Your task to perform on an android device: Search for the best Nike running shoes on Nike.com Image 0: 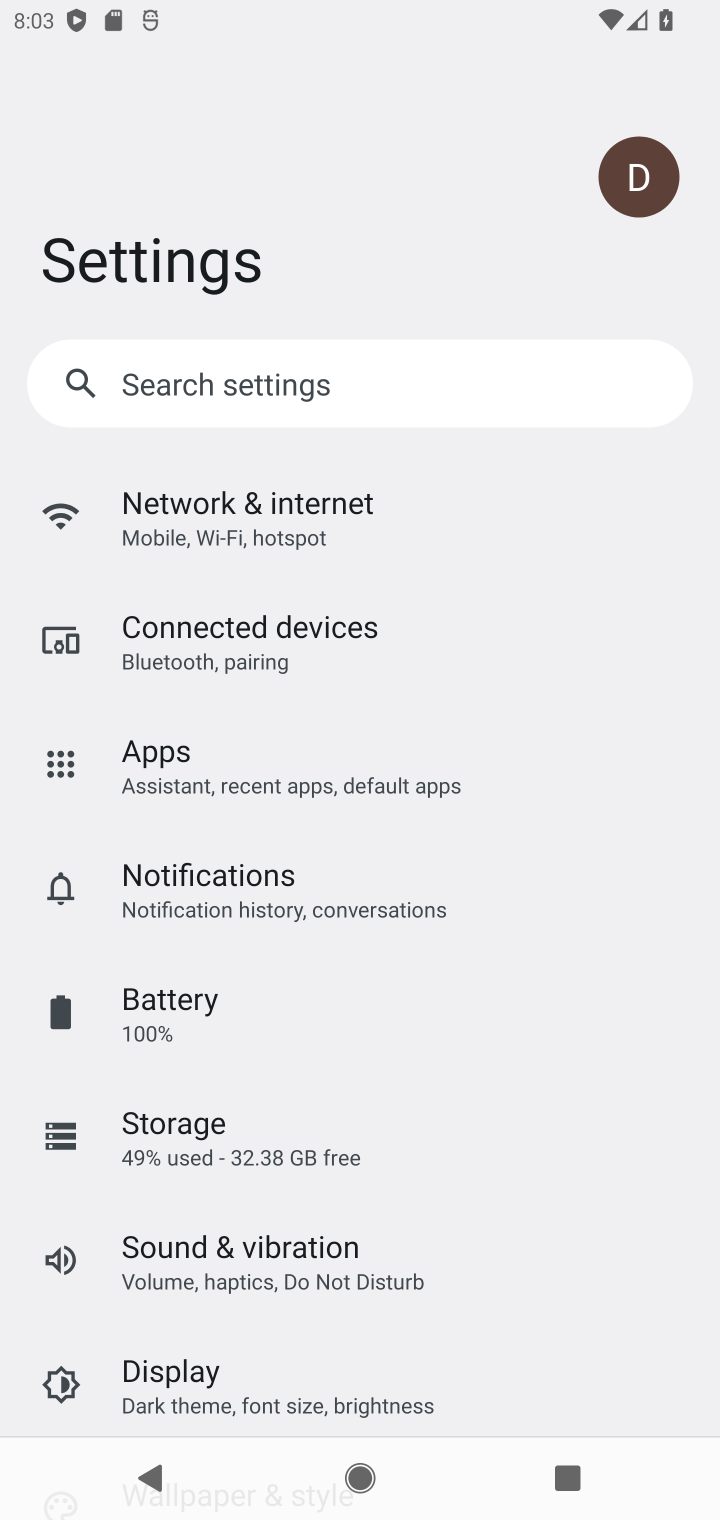
Step 0: press home button
Your task to perform on an android device: Search for the best Nike running shoes on Nike.com Image 1: 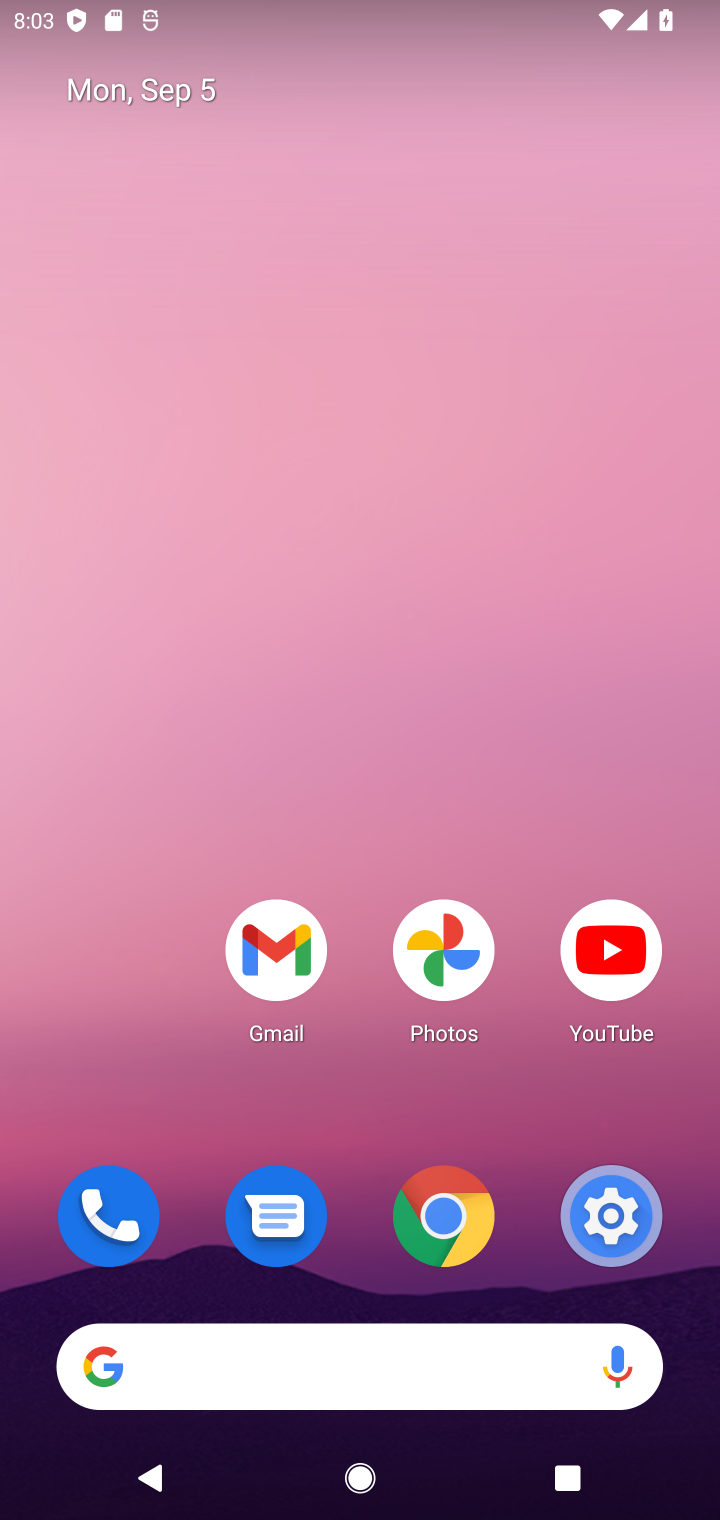
Step 1: click (462, 1400)
Your task to perform on an android device: Search for the best Nike running shoes on Nike.com Image 2: 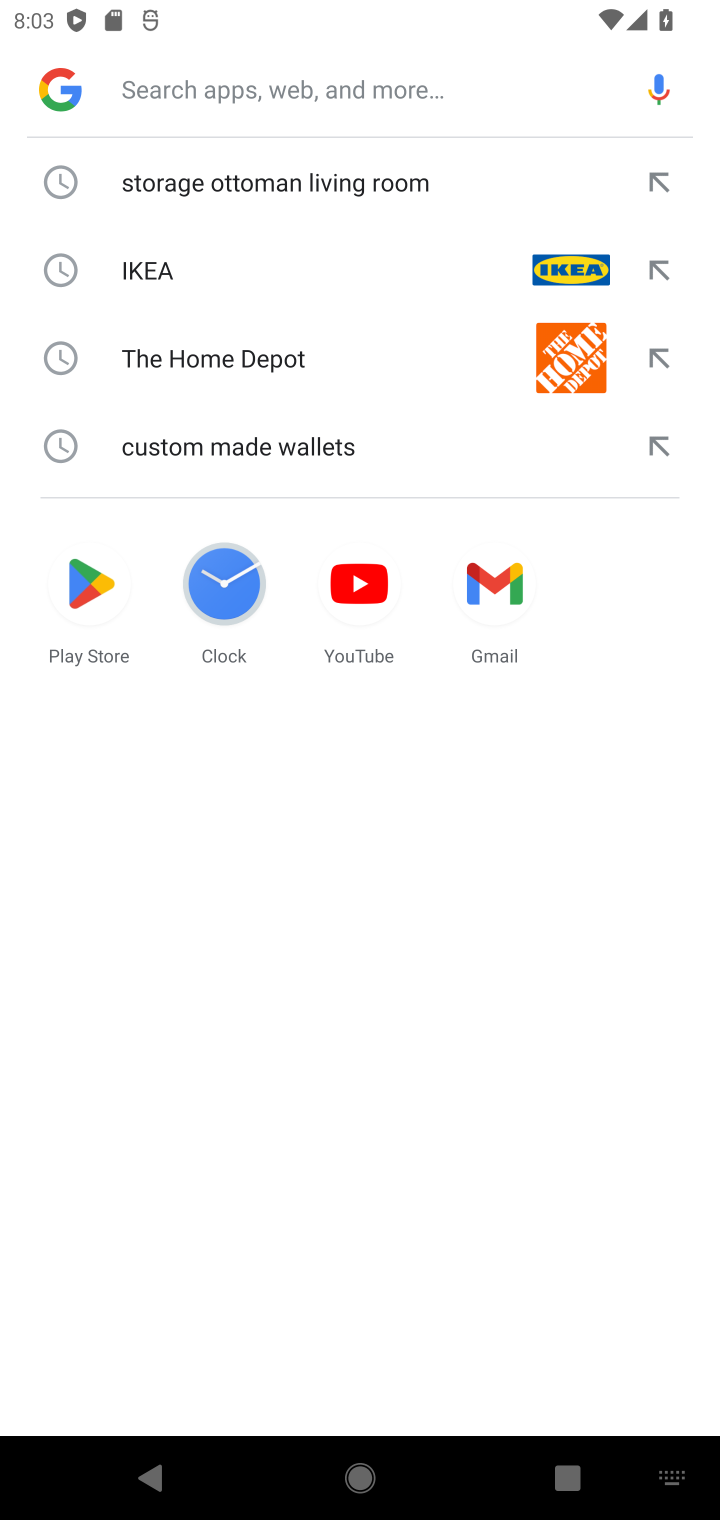
Step 2: type " Nike.com"
Your task to perform on an android device: Search for the best Nike running shoes on Nike.com Image 3: 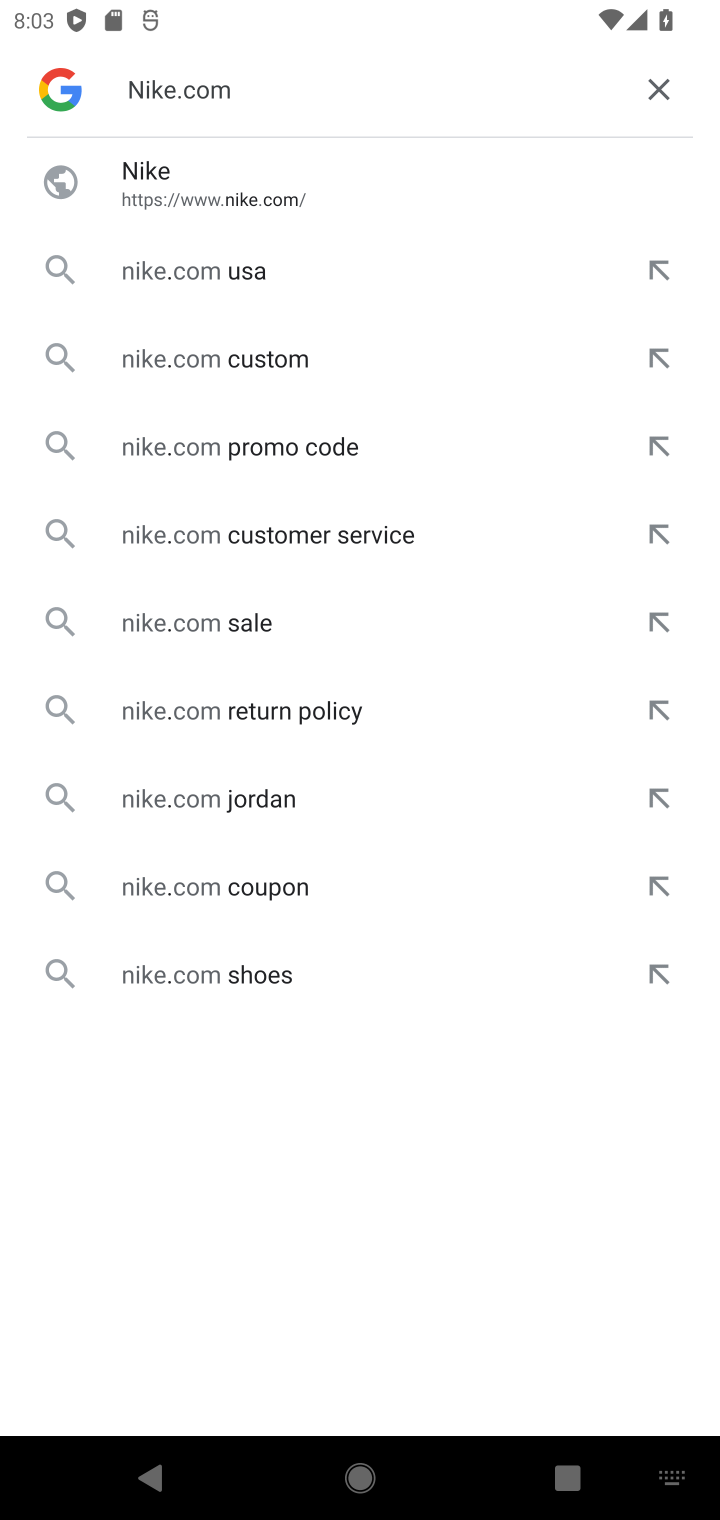
Step 3: click (271, 205)
Your task to perform on an android device: Search for the best Nike running shoes on Nike.com Image 4: 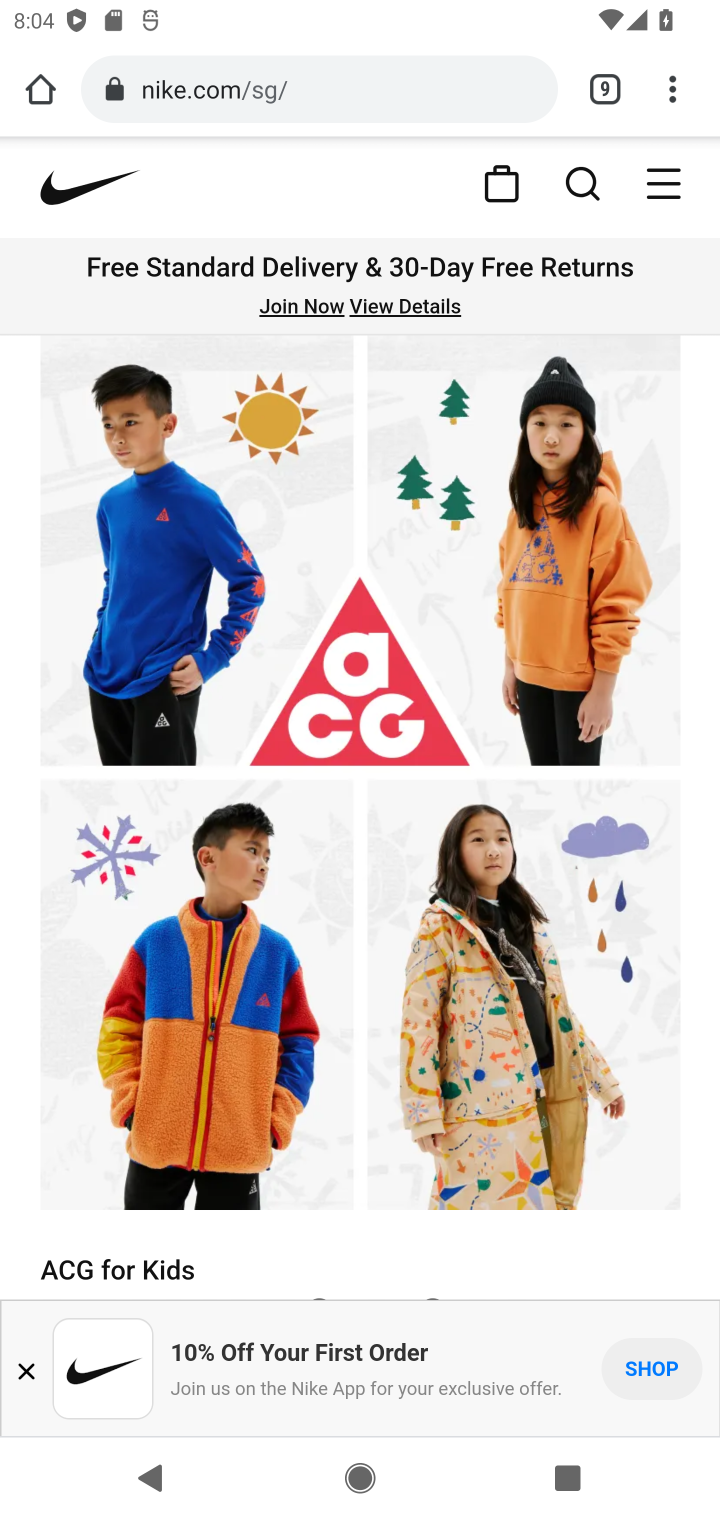
Step 4: task complete